Your task to perform on an android device: move a message to another label in the gmail app Image 0: 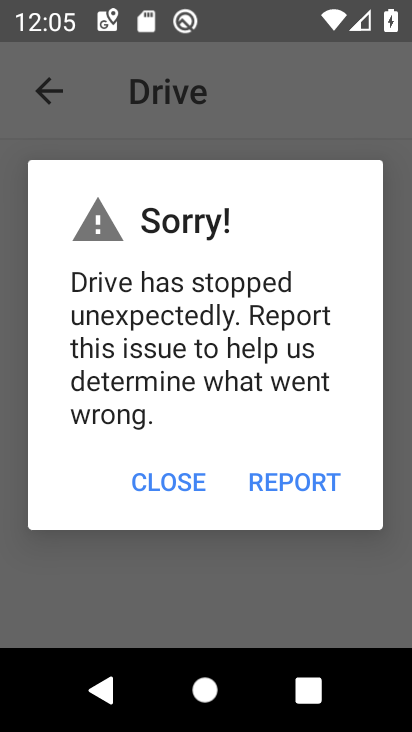
Step 0: press home button
Your task to perform on an android device: move a message to another label in the gmail app Image 1: 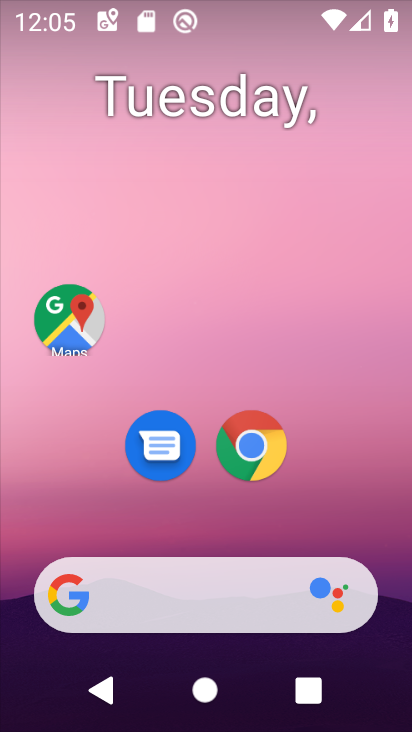
Step 1: drag from (329, 520) to (258, 15)
Your task to perform on an android device: move a message to another label in the gmail app Image 2: 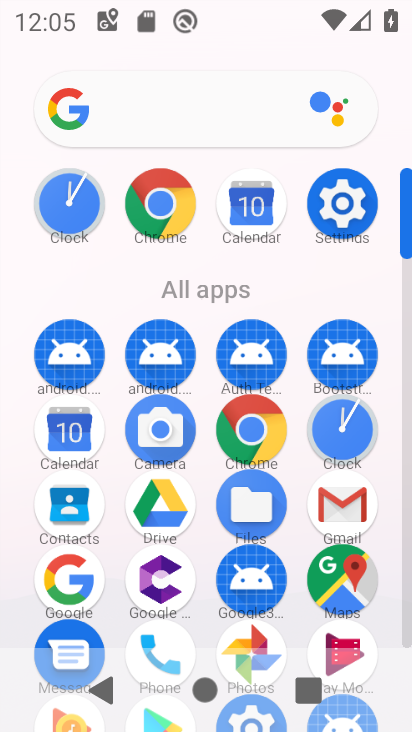
Step 2: click (349, 503)
Your task to perform on an android device: move a message to another label in the gmail app Image 3: 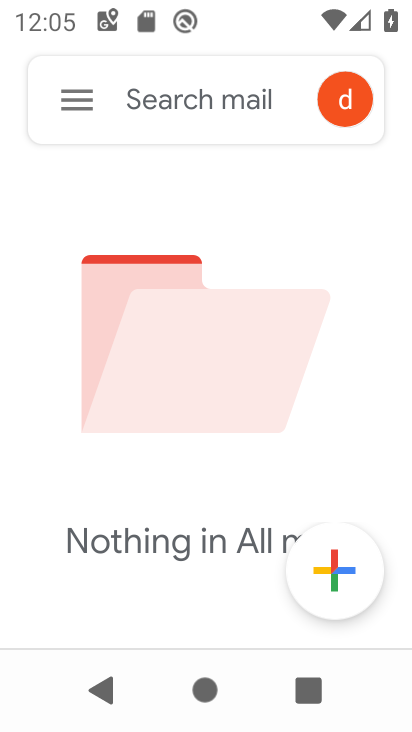
Step 3: click (76, 97)
Your task to perform on an android device: move a message to another label in the gmail app Image 4: 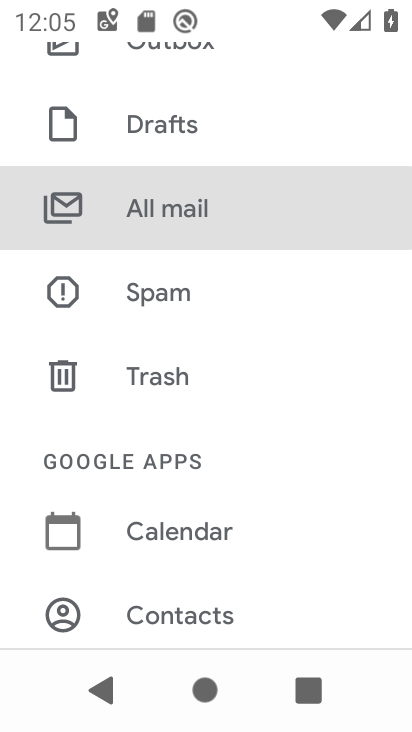
Step 4: click (137, 221)
Your task to perform on an android device: move a message to another label in the gmail app Image 5: 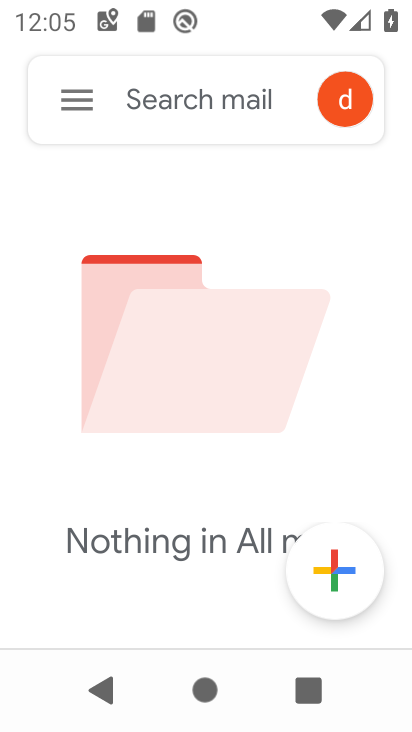
Step 5: task complete